Your task to perform on an android device: Open network settings Image 0: 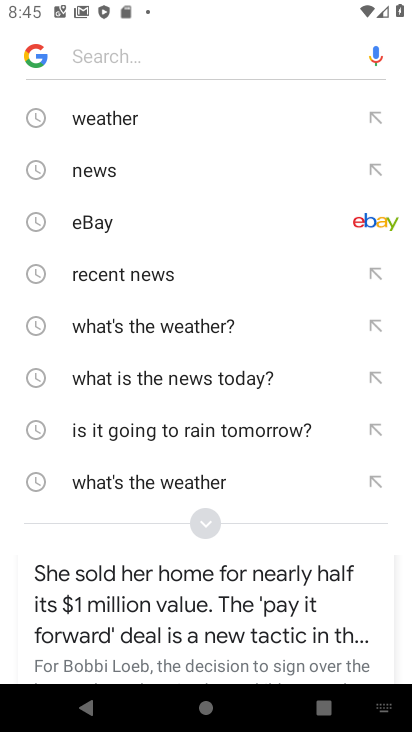
Step 0: press home button
Your task to perform on an android device: Open network settings Image 1: 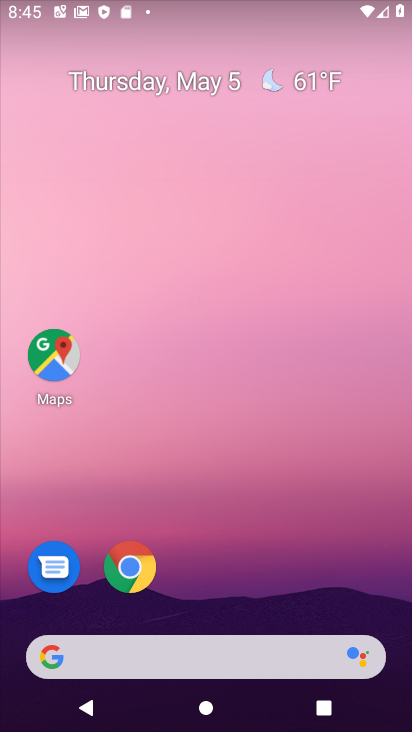
Step 1: drag from (222, 589) to (265, 54)
Your task to perform on an android device: Open network settings Image 2: 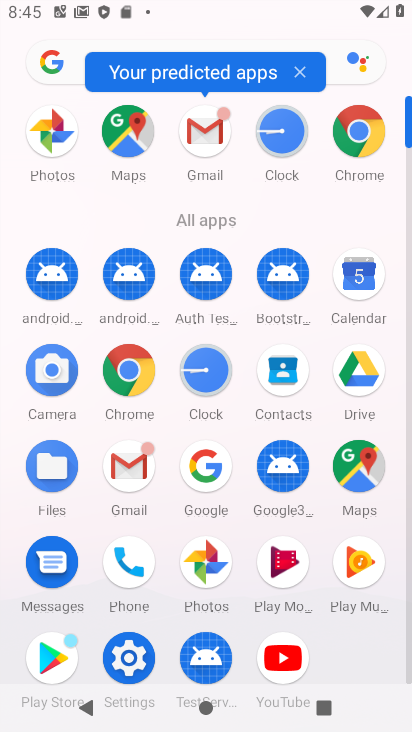
Step 2: click (129, 670)
Your task to perform on an android device: Open network settings Image 3: 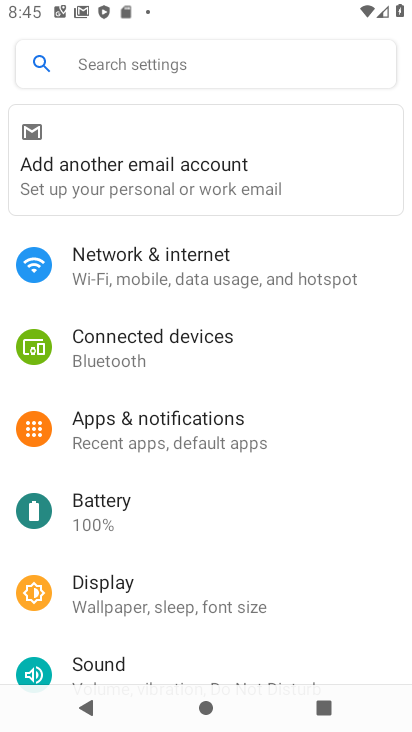
Step 3: click (229, 266)
Your task to perform on an android device: Open network settings Image 4: 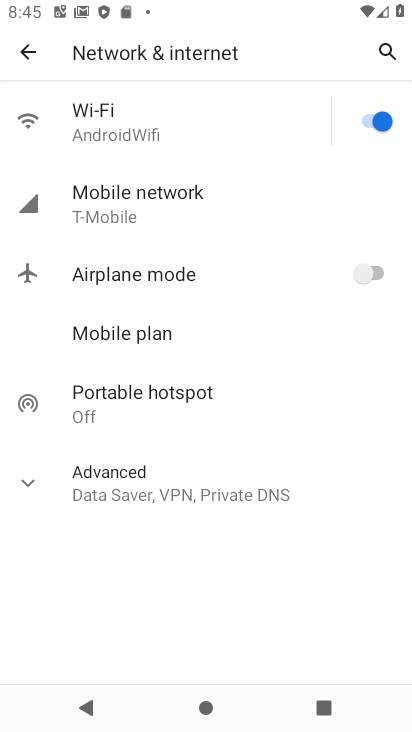
Step 4: task complete